Your task to perform on an android device: What's the weather going to be tomorrow? Image 0: 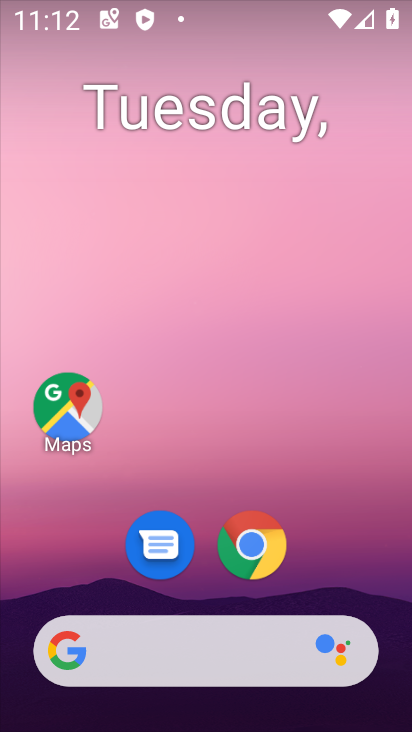
Step 0: drag from (95, 257) to (407, 241)
Your task to perform on an android device: What's the weather going to be tomorrow? Image 1: 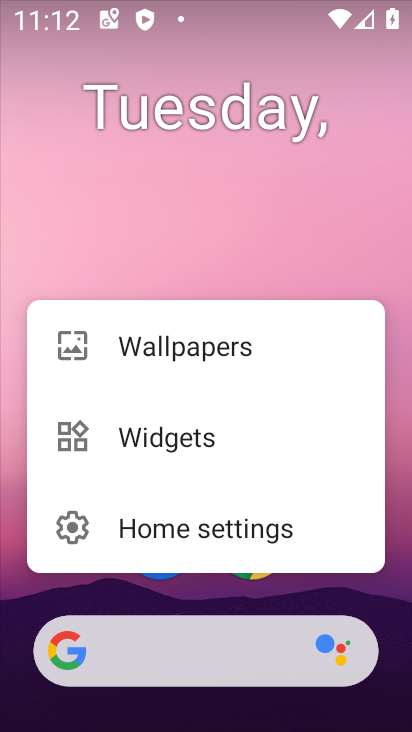
Step 1: click (300, 234)
Your task to perform on an android device: What's the weather going to be tomorrow? Image 2: 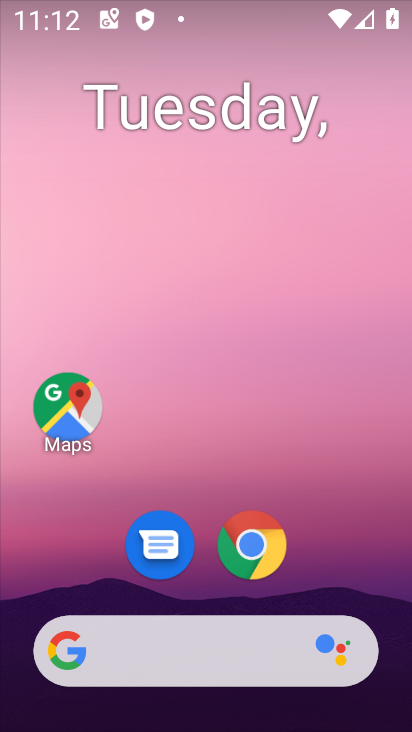
Step 2: drag from (80, 239) to (396, 241)
Your task to perform on an android device: What's the weather going to be tomorrow? Image 3: 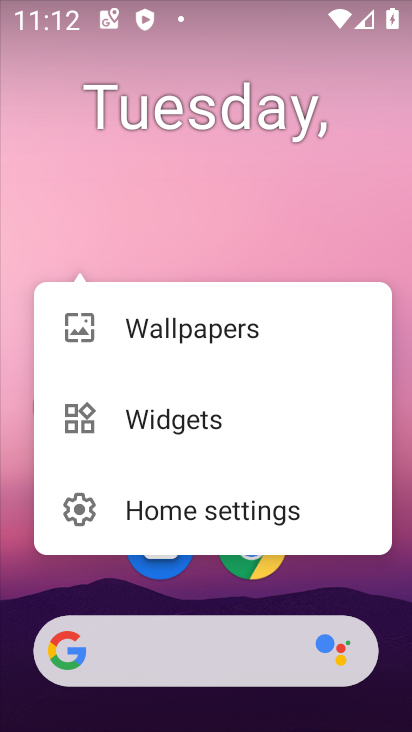
Step 3: click (338, 227)
Your task to perform on an android device: What's the weather going to be tomorrow? Image 4: 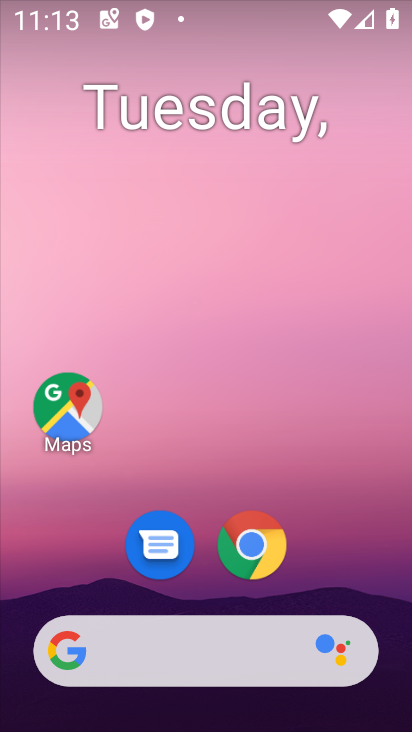
Step 4: click (278, 651)
Your task to perform on an android device: What's the weather going to be tomorrow? Image 5: 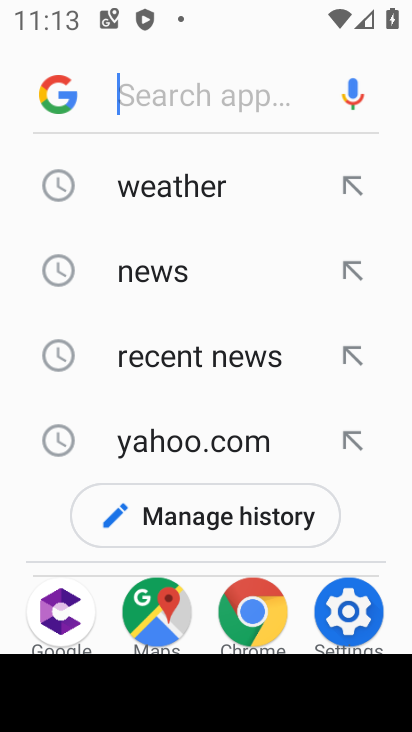
Step 5: click (201, 181)
Your task to perform on an android device: What's the weather going to be tomorrow? Image 6: 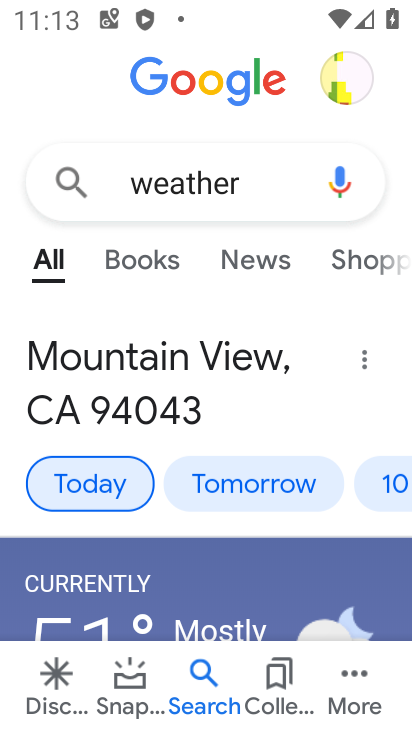
Step 6: click (235, 476)
Your task to perform on an android device: What's the weather going to be tomorrow? Image 7: 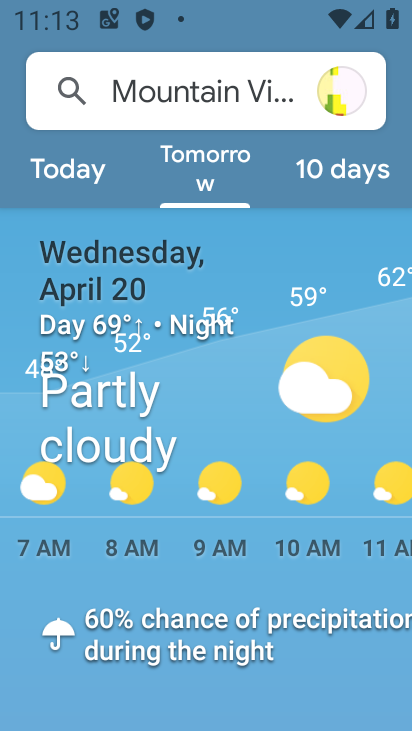
Step 7: task complete